Your task to perform on an android device: change your default location settings in chrome Image 0: 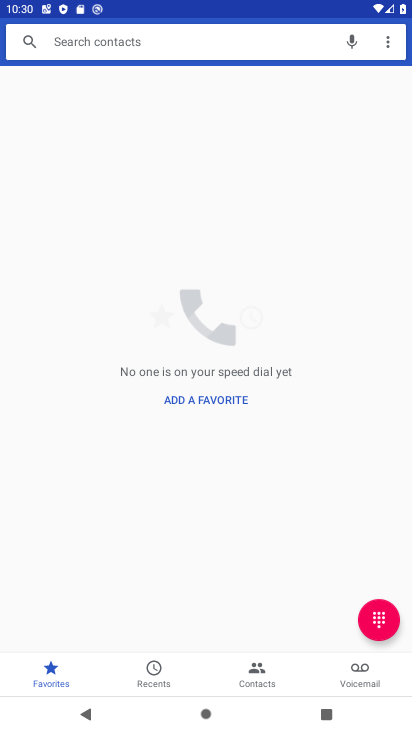
Step 0: press home button
Your task to perform on an android device: change your default location settings in chrome Image 1: 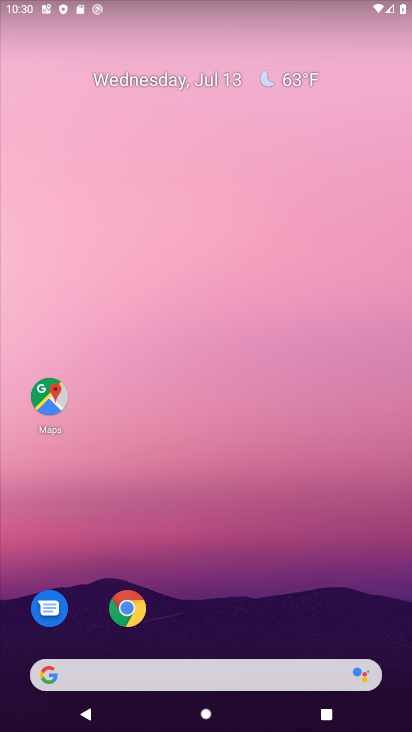
Step 1: drag from (307, 577) to (399, 127)
Your task to perform on an android device: change your default location settings in chrome Image 2: 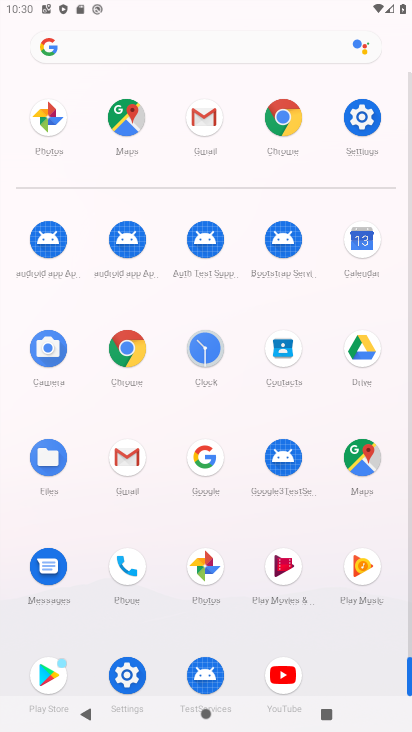
Step 2: click (135, 343)
Your task to perform on an android device: change your default location settings in chrome Image 3: 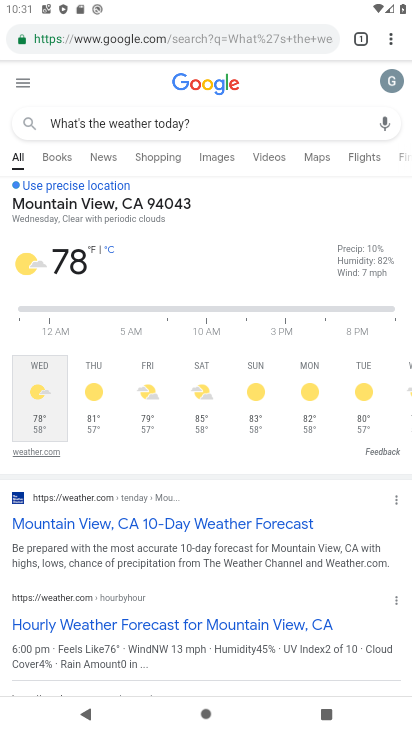
Step 3: drag from (396, 40) to (241, 430)
Your task to perform on an android device: change your default location settings in chrome Image 4: 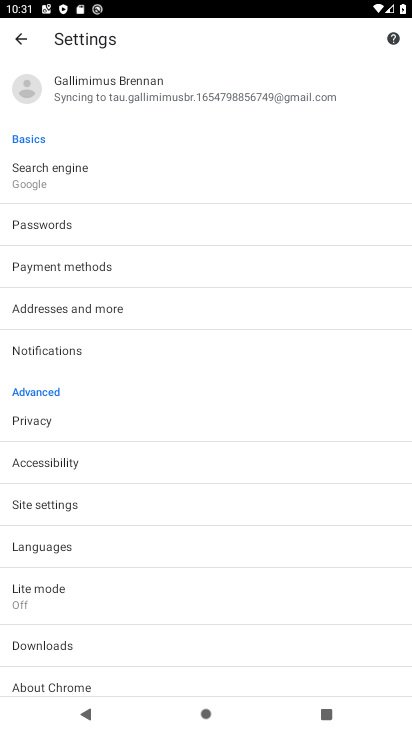
Step 4: click (76, 510)
Your task to perform on an android device: change your default location settings in chrome Image 5: 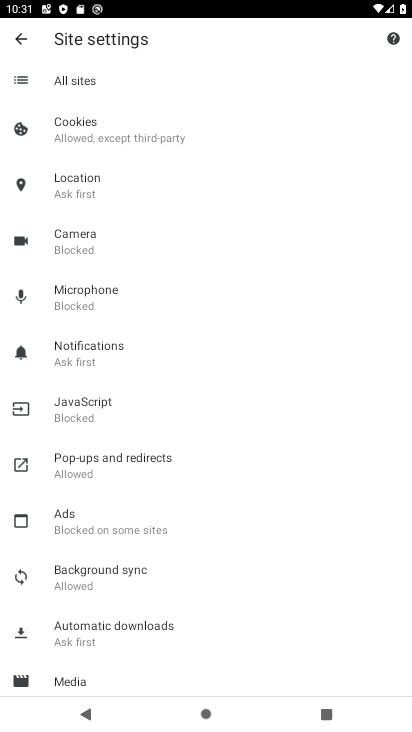
Step 5: click (71, 191)
Your task to perform on an android device: change your default location settings in chrome Image 6: 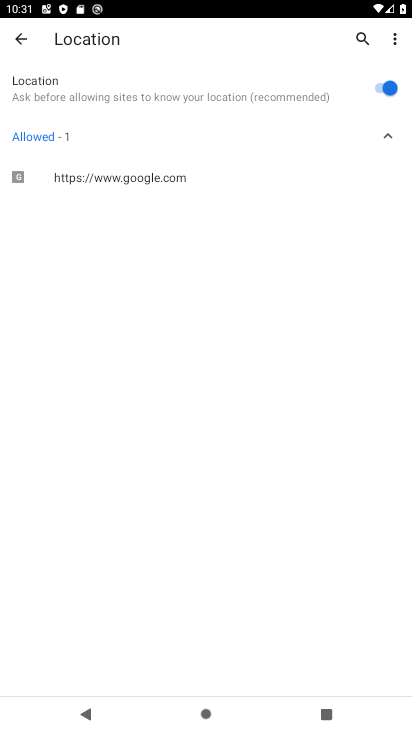
Step 6: click (382, 89)
Your task to perform on an android device: change your default location settings in chrome Image 7: 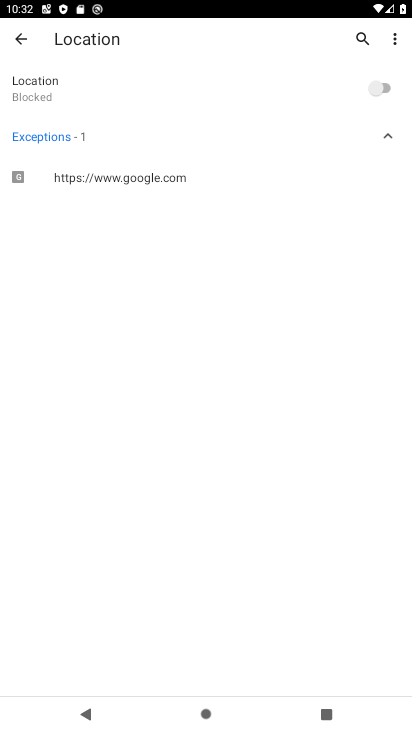
Step 7: task complete